Your task to perform on an android device: Search for Mexican restaurants on Maps Image 0: 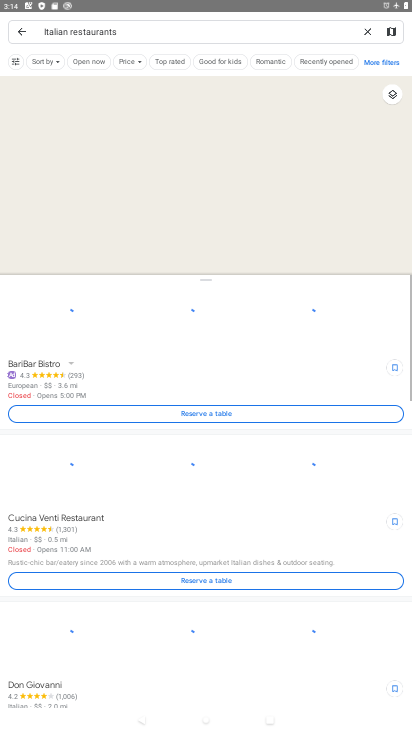
Step 0: press home button
Your task to perform on an android device: Search for Mexican restaurants on Maps Image 1: 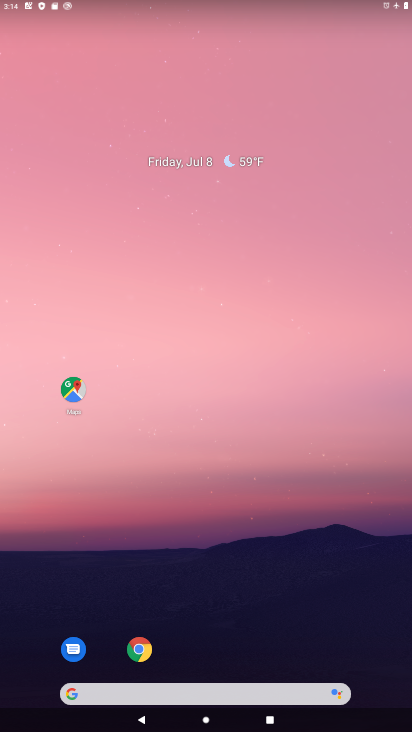
Step 1: drag from (343, 639) to (301, 166)
Your task to perform on an android device: Search for Mexican restaurants on Maps Image 2: 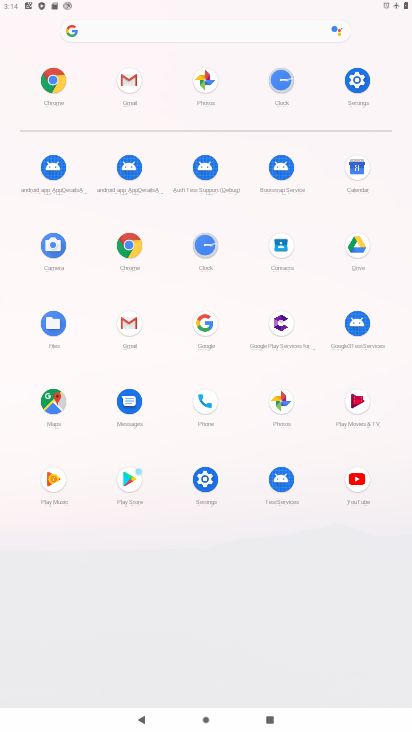
Step 2: click (54, 401)
Your task to perform on an android device: Search for Mexican restaurants on Maps Image 3: 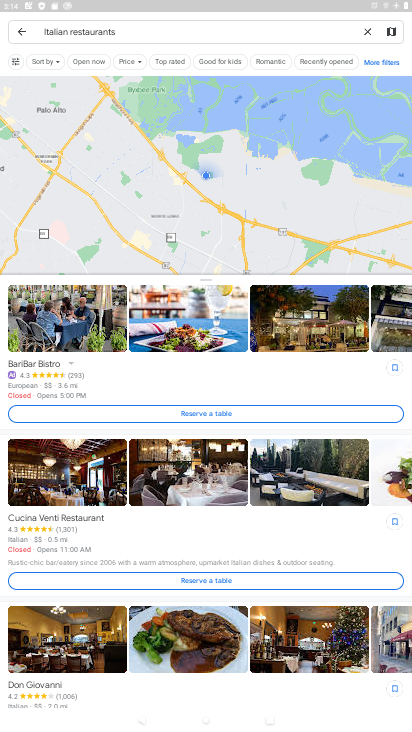
Step 3: click (243, 24)
Your task to perform on an android device: Search for Mexican restaurants on Maps Image 4: 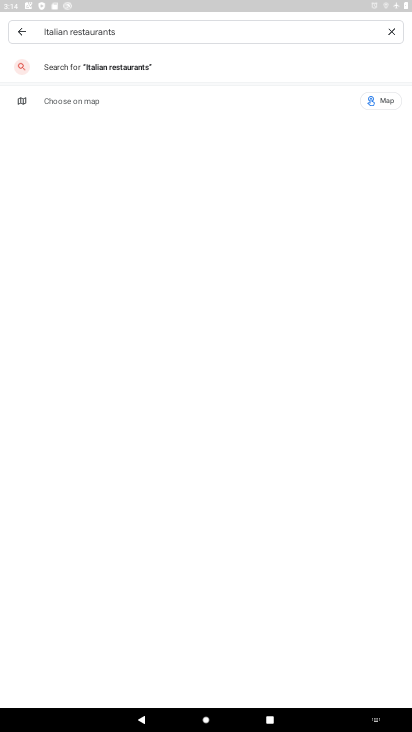
Step 4: click (391, 28)
Your task to perform on an android device: Search for Mexican restaurants on Maps Image 5: 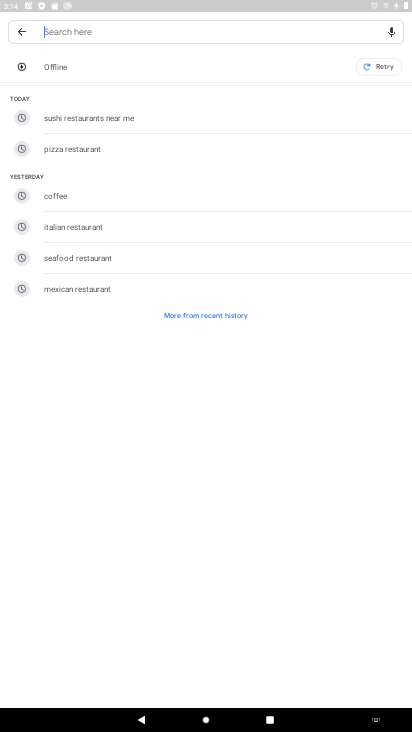
Step 5: type "Mexian restaurants"
Your task to perform on an android device: Search for Mexican restaurants on Maps Image 6: 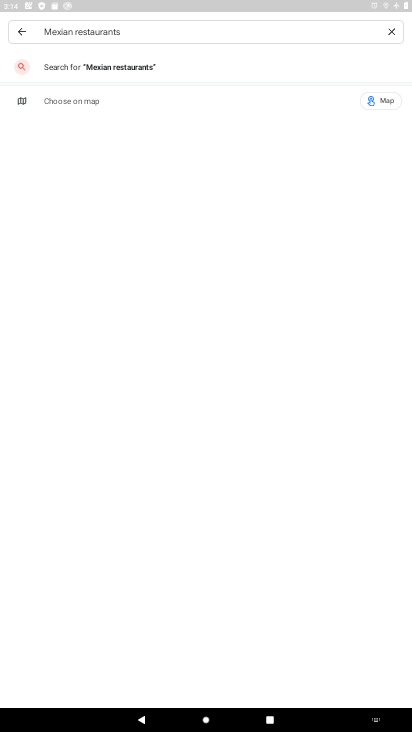
Step 6: press enter
Your task to perform on an android device: Search for Mexican restaurants on Maps Image 7: 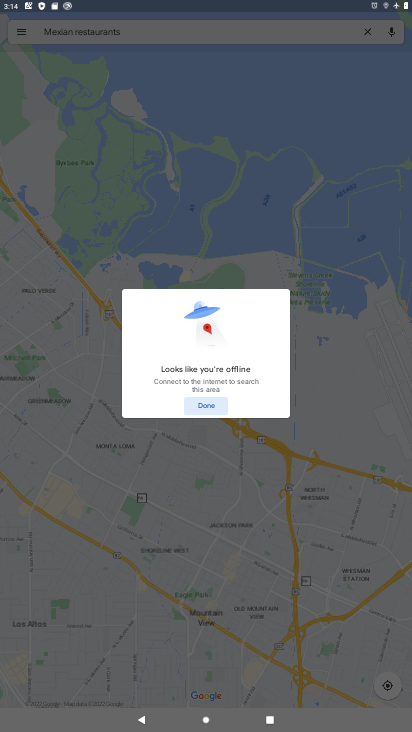
Step 7: task complete